Your task to perform on an android device: Show the shopping cart on newegg. Search for razer deathadder on newegg, select the first entry, and add it to the cart. Image 0: 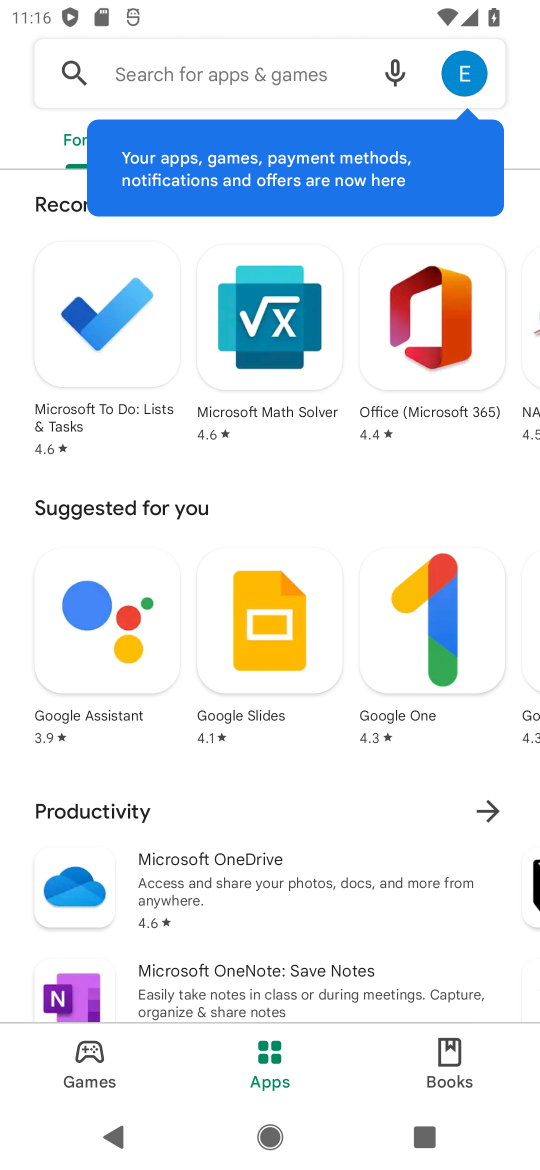
Step 0: press home button
Your task to perform on an android device: Show the shopping cart on newegg. Search for razer deathadder on newegg, select the first entry, and add it to the cart. Image 1: 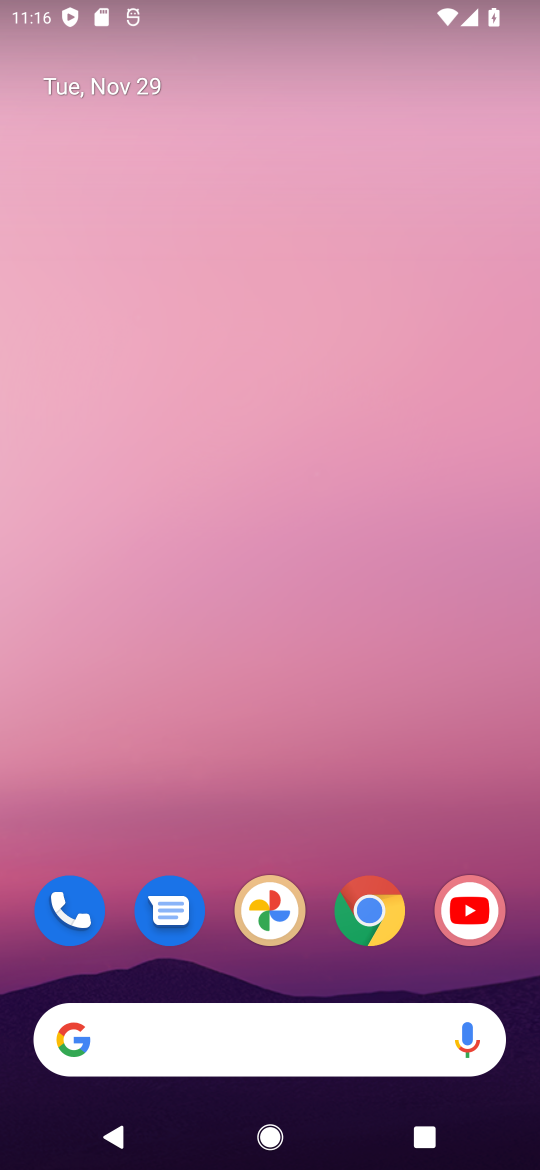
Step 1: click (385, 908)
Your task to perform on an android device: Show the shopping cart on newegg. Search for razer deathadder on newegg, select the first entry, and add it to the cart. Image 2: 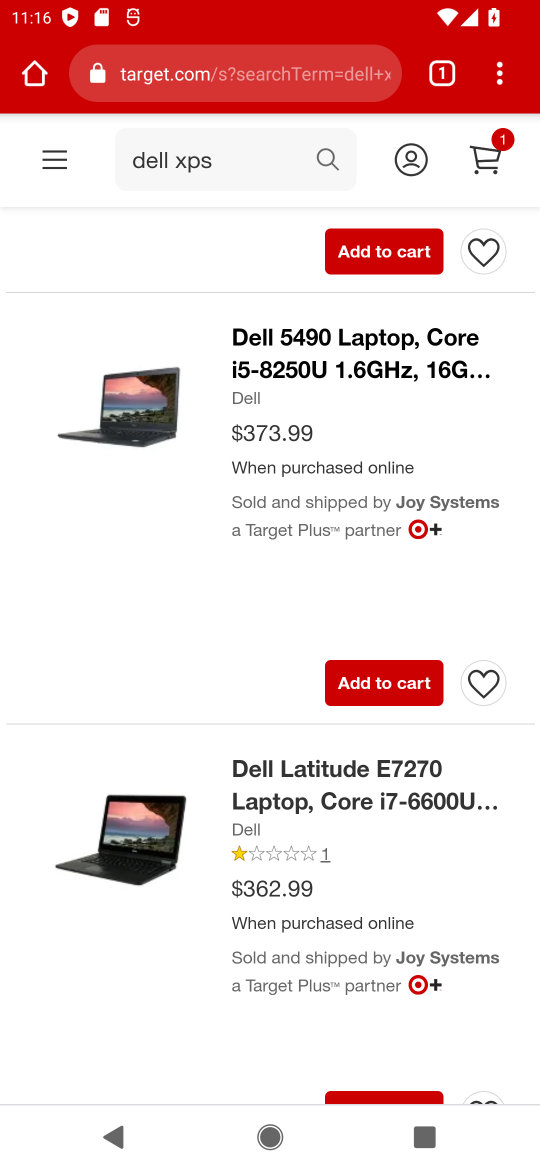
Step 2: click (177, 75)
Your task to perform on an android device: Show the shopping cart on newegg. Search for razer deathadder on newegg, select the first entry, and add it to the cart. Image 3: 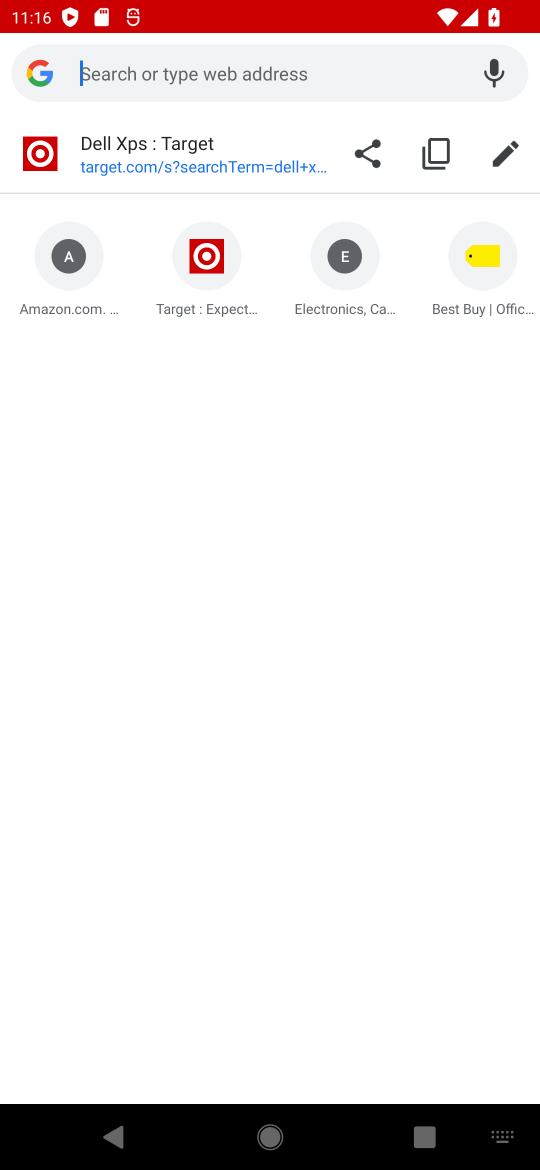
Step 3: type "newegg.com"
Your task to perform on an android device: Show the shopping cart on newegg. Search for razer deathadder on newegg, select the first entry, and add it to the cart. Image 4: 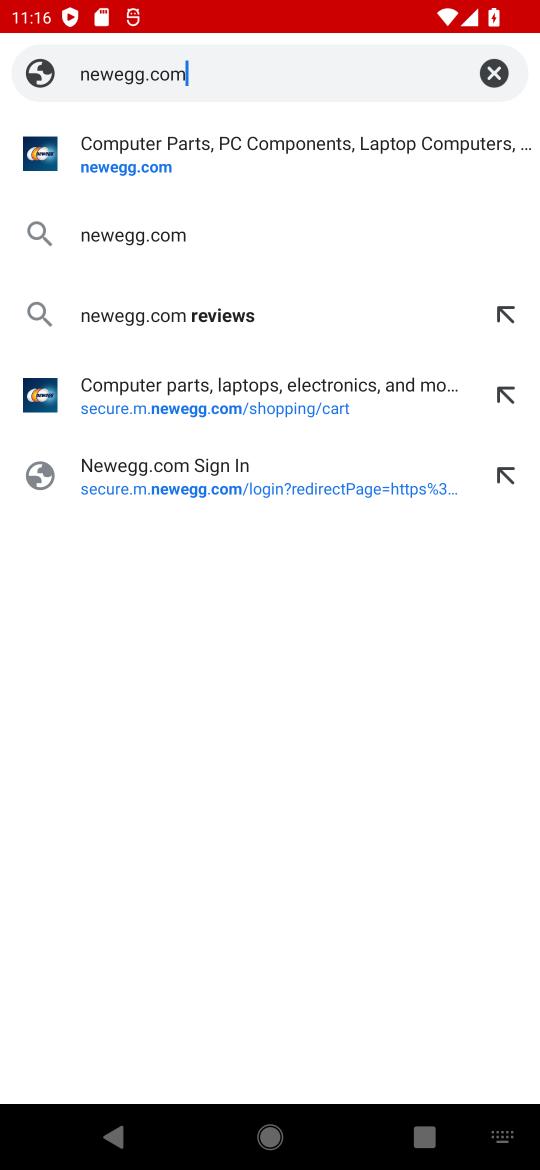
Step 4: click (133, 174)
Your task to perform on an android device: Show the shopping cart on newegg. Search for razer deathadder on newegg, select the first entry, and add it to the cart. Image 5: 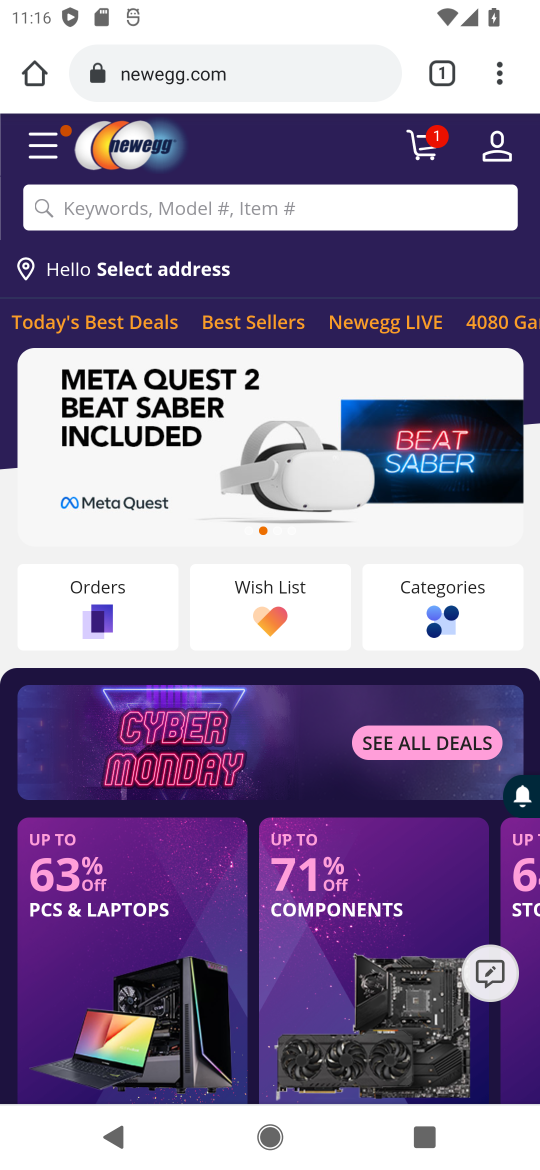
Step 5: click (425, 156)
Your task to perform on an android device: Show the shopping cart on newegg. Search for razer deathadder on newegg, select the first entry, and add it to the cart. Image 6: 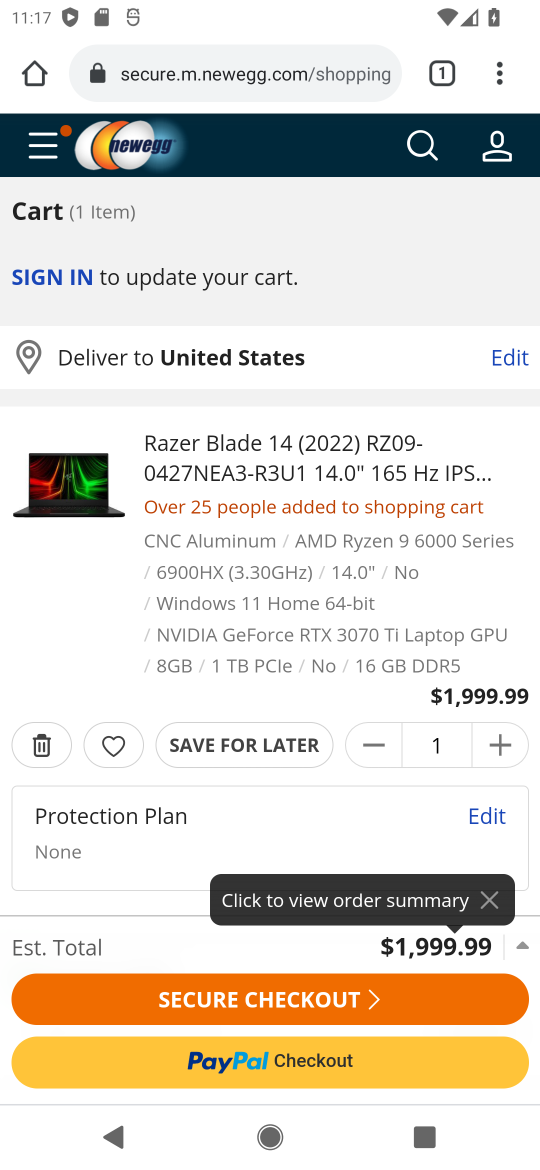
Step 6: click (415, 156)
Your task to perform on an android device: Show the shopping cart on newegg. Search for razer deathadder on newegg, select the first entry, and add it to the cart. Image 7: 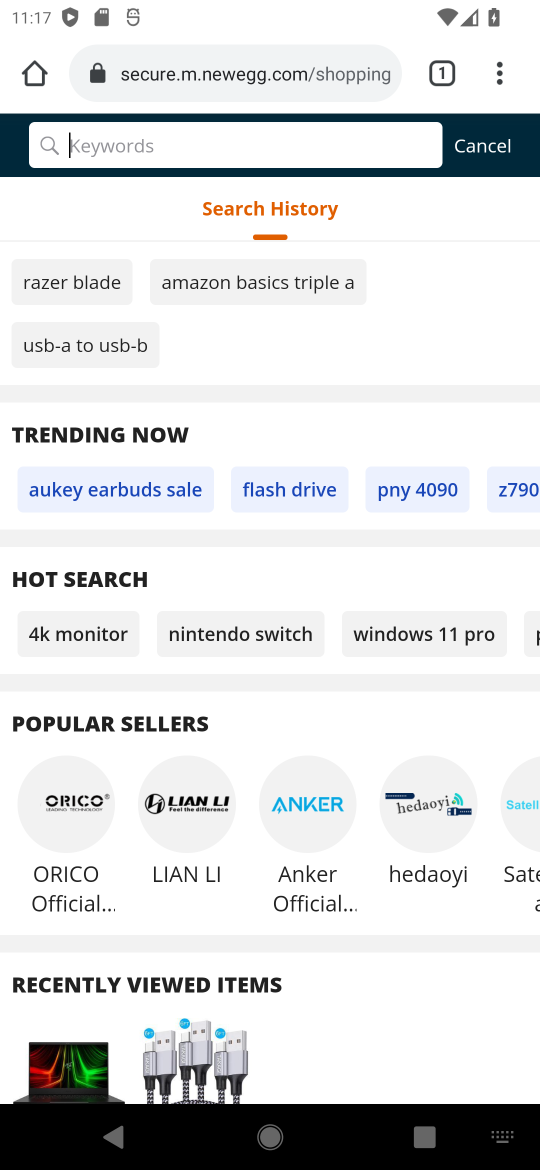
Step 7: type "razer deathadder"
Your task to perform on an android device: Show the shopping cart on newegg. Search for razer deathadder on newegg, select the first entry, and add it to the cart. Image 8: 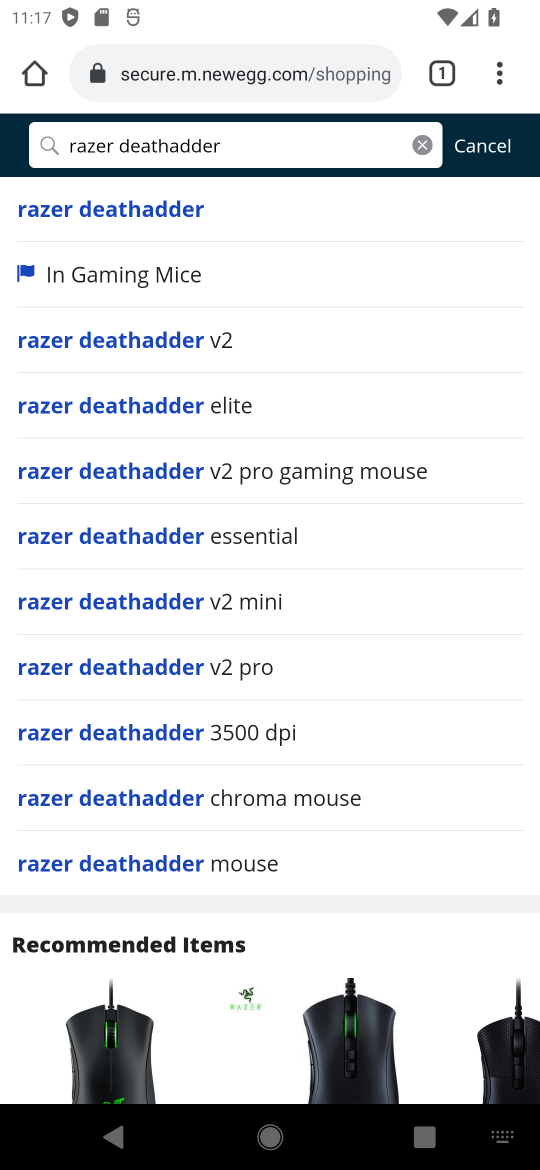
Step 8: click (112, 204)
Your task to perform on an android device: Show the shopping cart on newegg. Search for razer deathadder on newegg, select the first entry, and add it to the cart. Image 9: 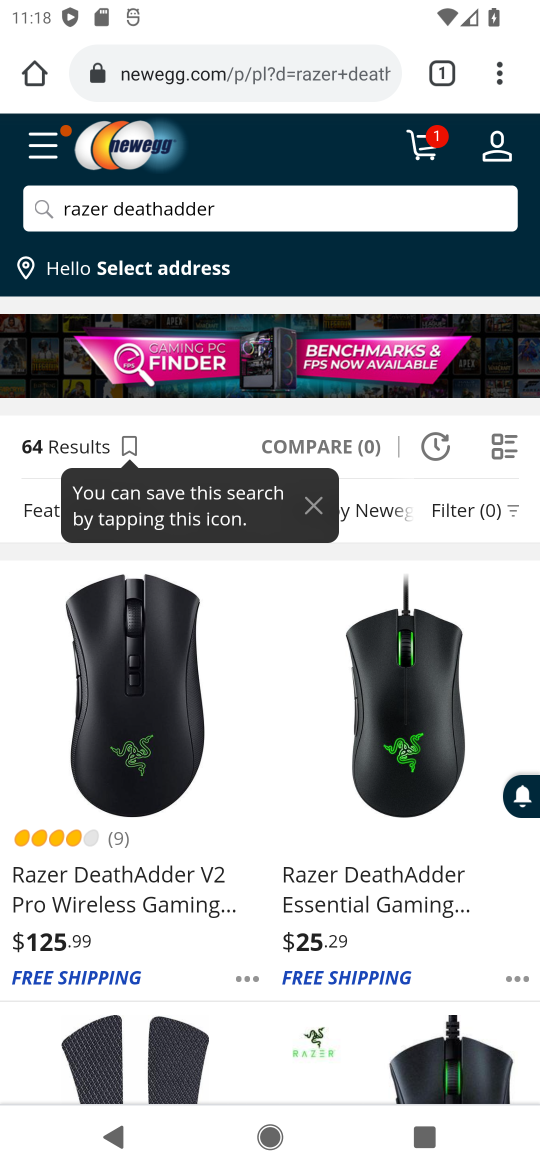
Step 9: click (122, 781)
Your task to perform on an android device: Show the shopping cart on newegg. Search for razer deathadder on newegg, select the first entry, and add it to the cart. Image 10: 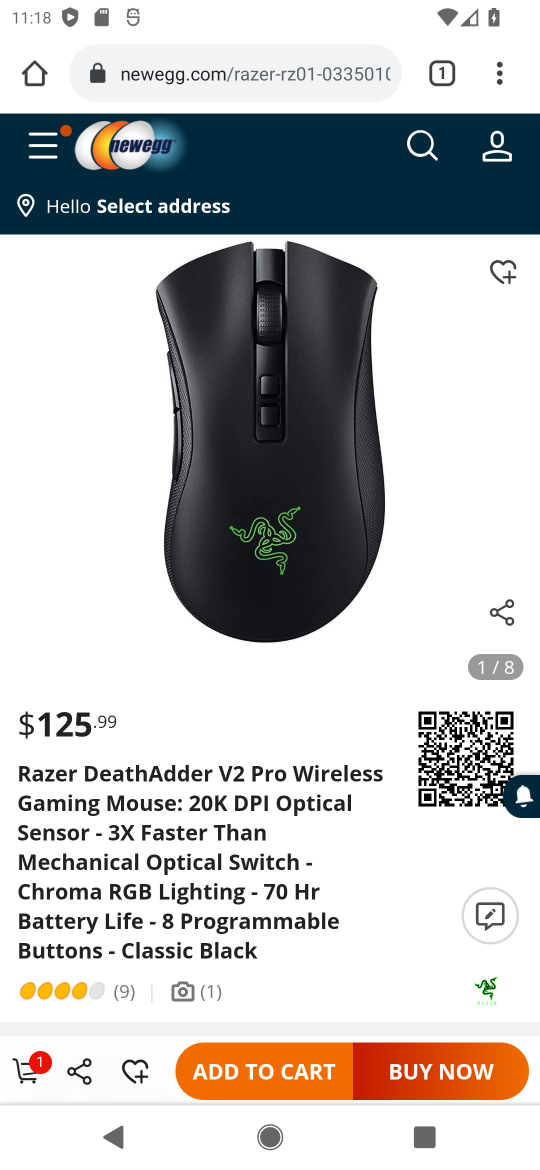
Step 10: drag from (214, 889) to (212, 624)
Your task to perform on an android device: Show the shopping cart on newegg. Search for razer deathadder on newegg, select the first entry, and add it to the cart. Image 11: 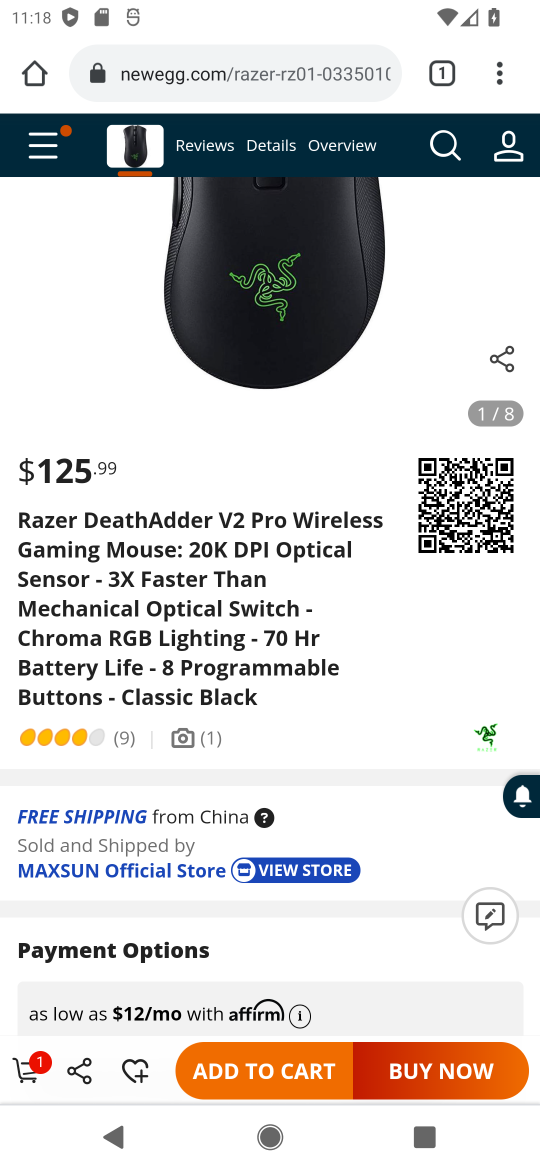
Step 11: click (241, 1068)
Your task to perform on an android device: Show the shopping cart on newegg. Search for razer deathadder on newegg, select the first entry, and add it to the cart. Image 12: 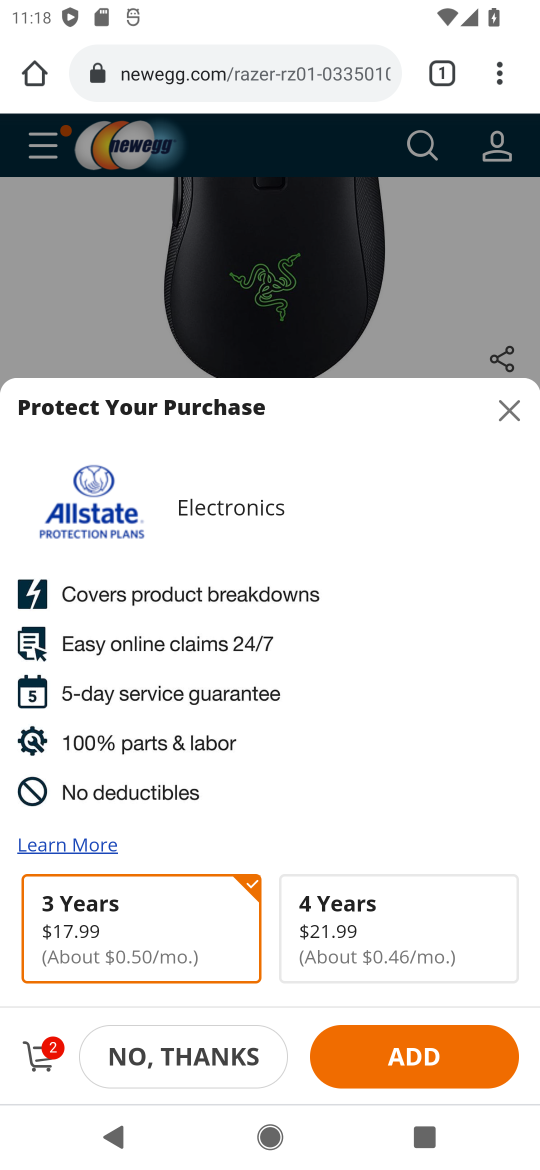
Step 12: task complete